Your task to perform on an android device: turn off wifi Image 0: 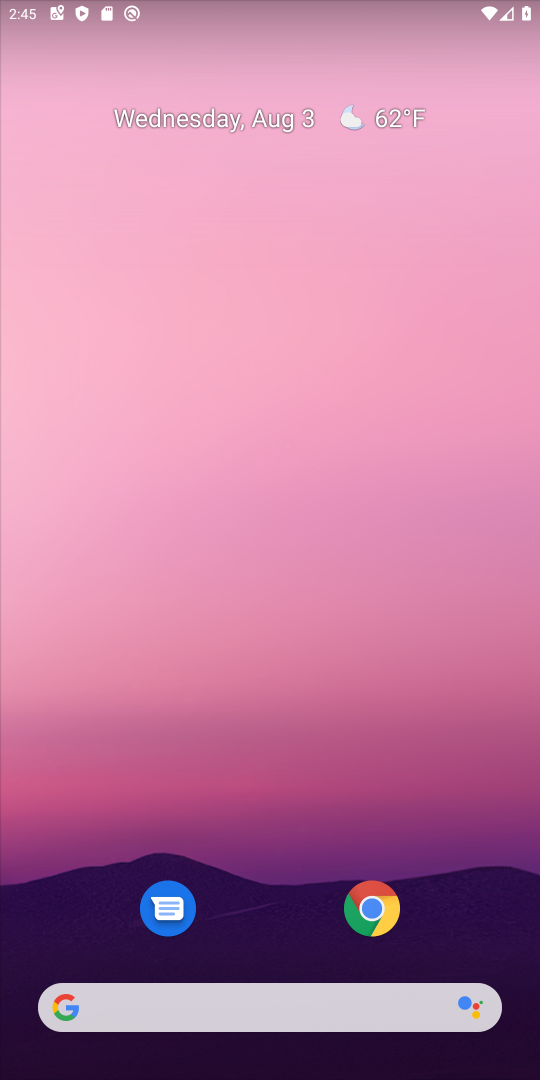
Step 0: drag from (168, 931) to (302, 202)
Your task to perform on an android device: turn off wifi Image 1: 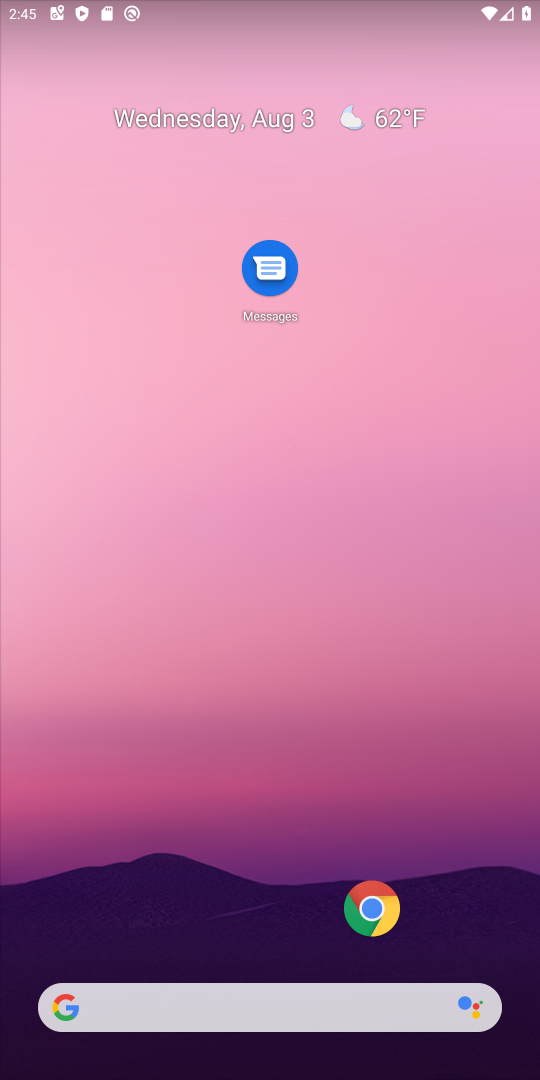
Step 1: press home button
Your task to perform on an android device: turn off wifi Image 2: 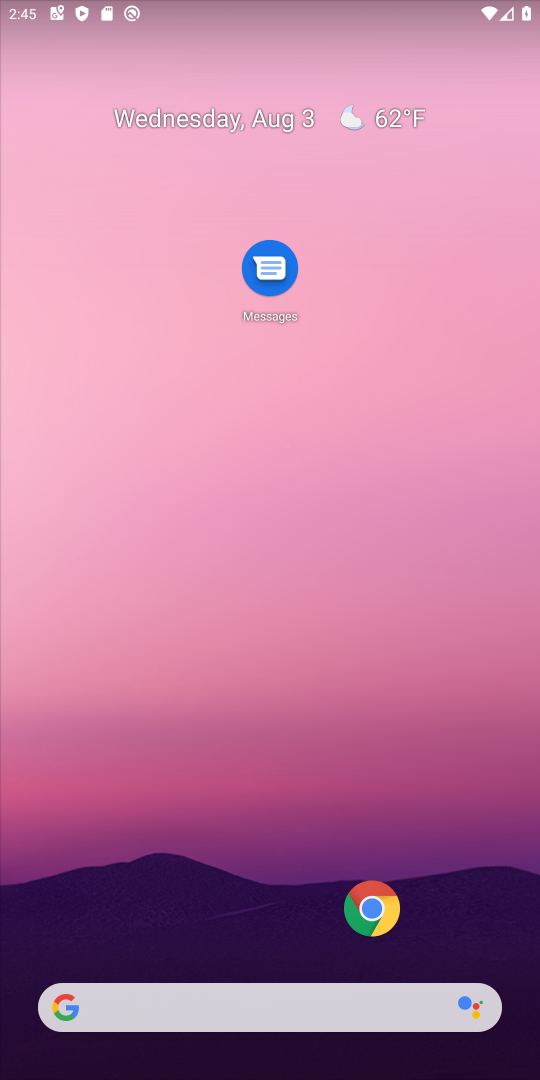
Step 2: drag from (161, 775) to (96, 36)
Your task to perform on an android device: turn off wifi Image 3: 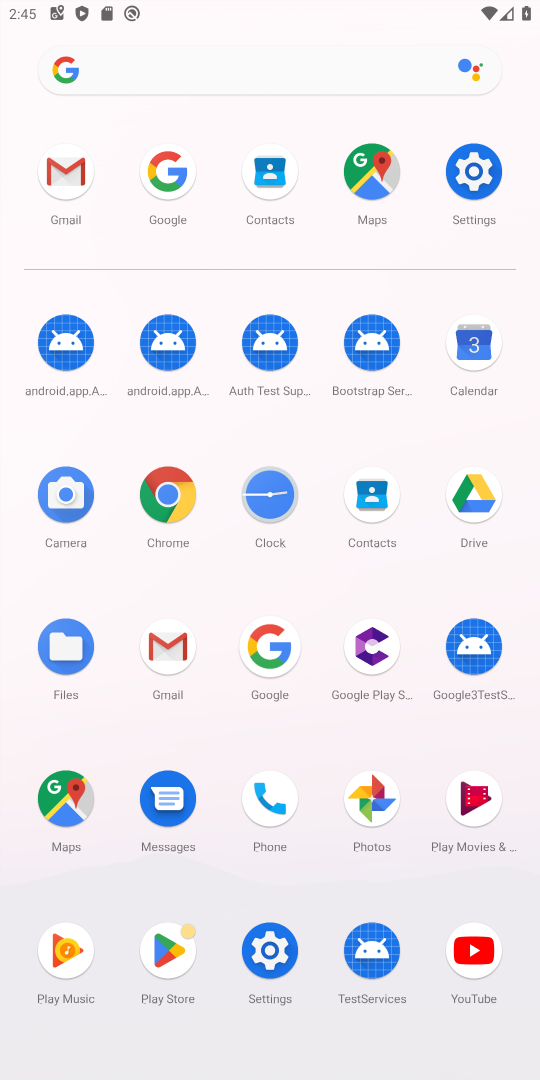
Step 3: click (483, 168)
Your task to perform on an android device: turn off wifi Image 4: 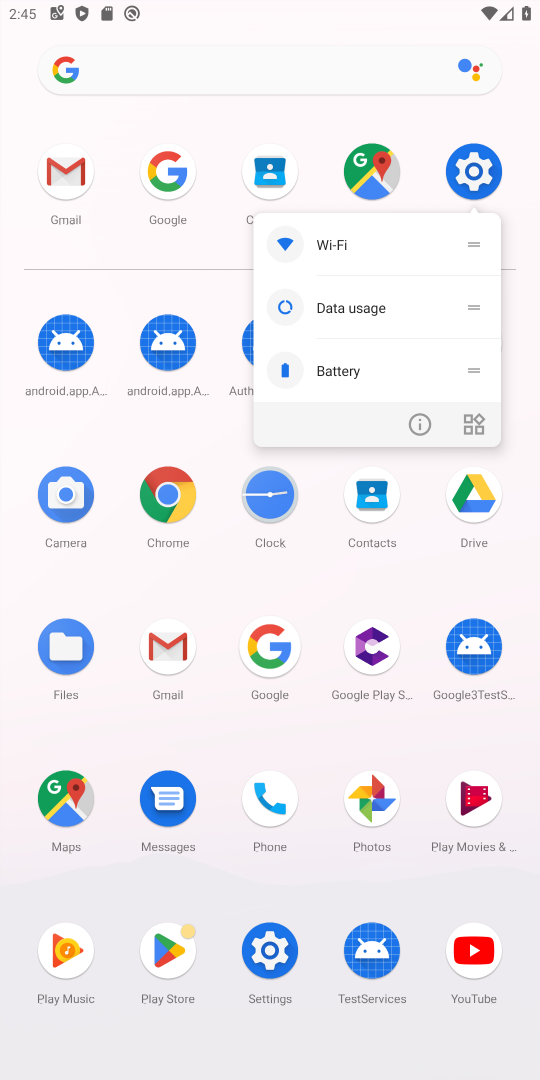
Step 4: click (483, 168)
Your task to perform on an android device: turn off wifi Image 5: 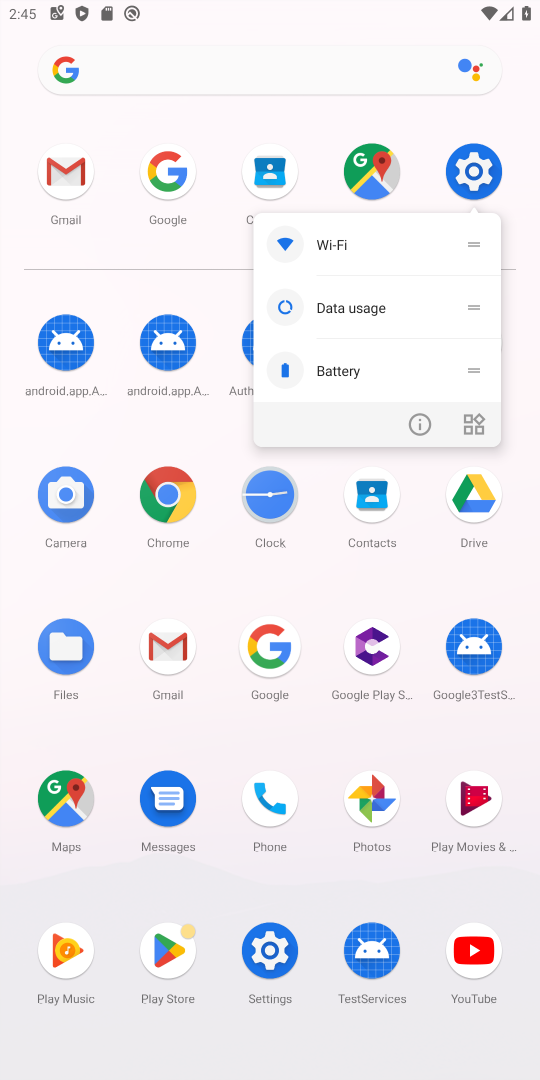
Step 5: click (483, 168)
Your task to perform on an android device: turn off wifi Image 6: 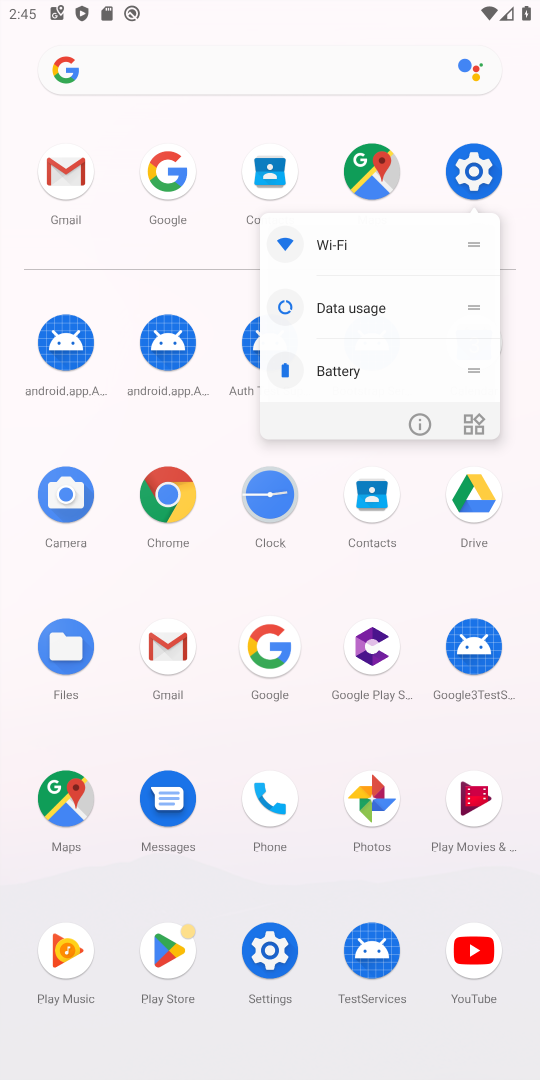
Step 6: click (483, 168)
Your task to perform on an android device: turn off wifi Image 7: 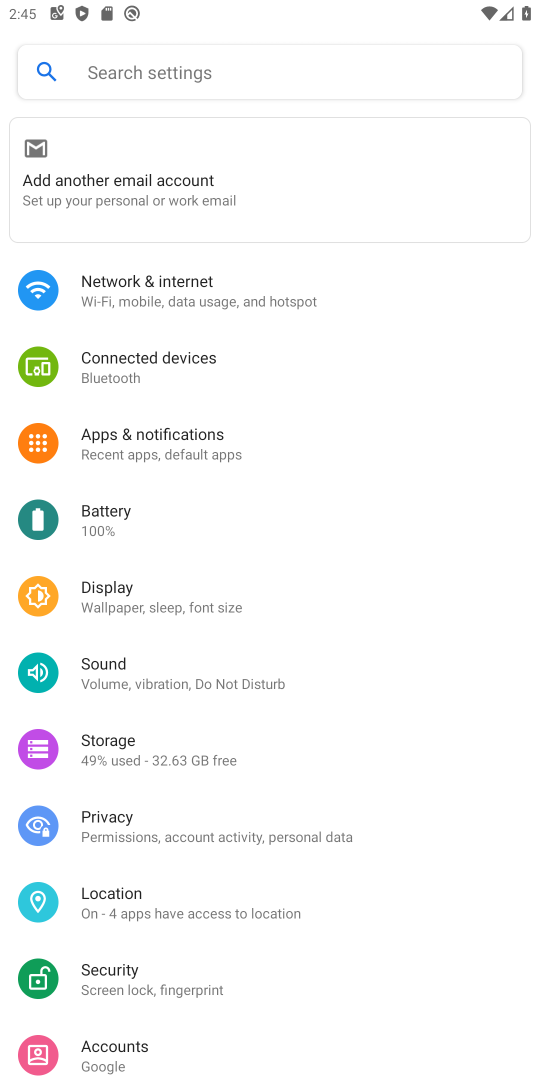
Step 7: click (263, 304)
Your task to perform on an android device: turn off wifi Image 8: 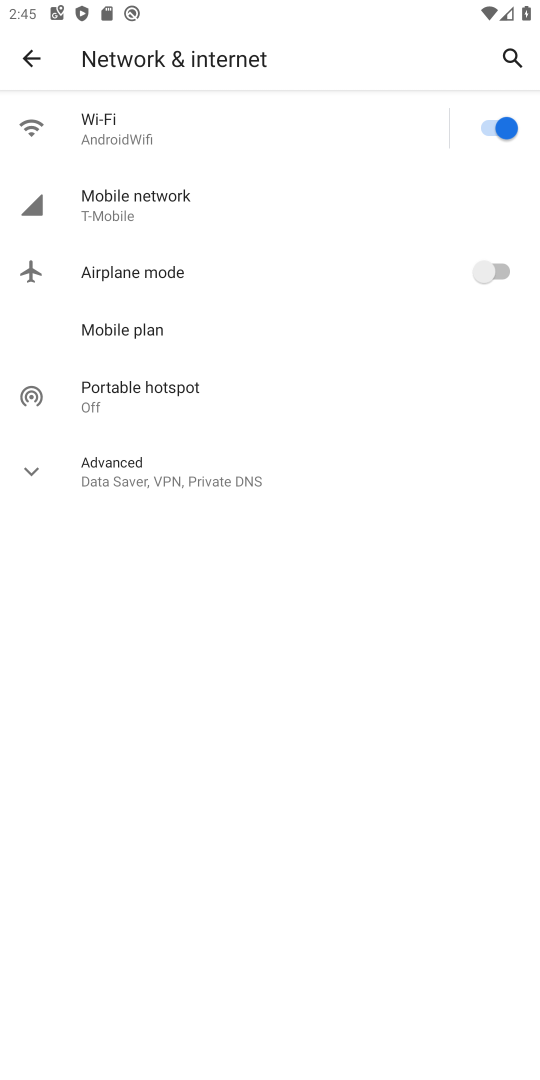
Step 8: click (485, 127)
Your task to perform on an android device: turn off wifi Image 9: 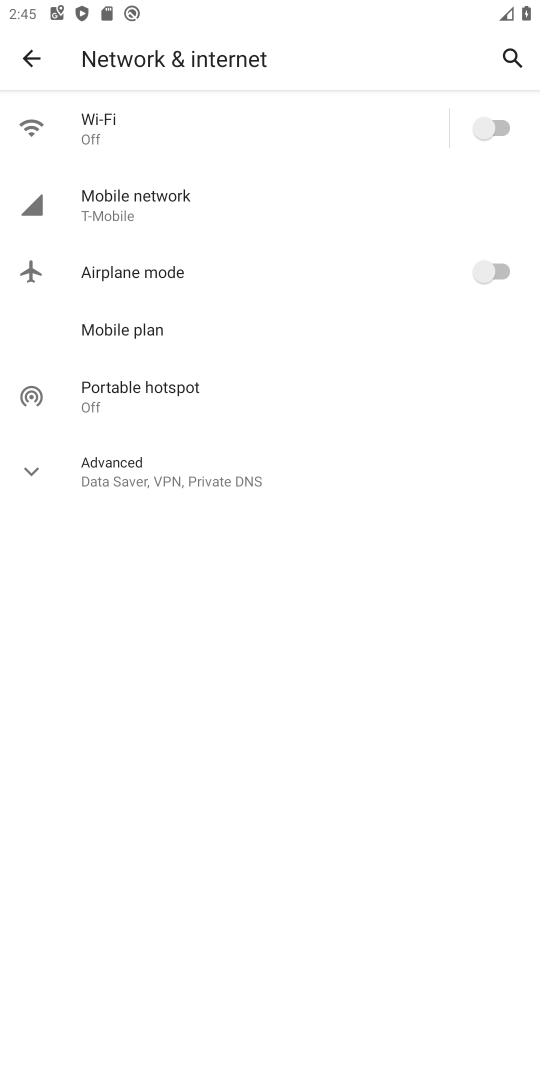
Step 9: task complete